Your task to perform on an android device: toggle data saver in the chrome app Image 0: 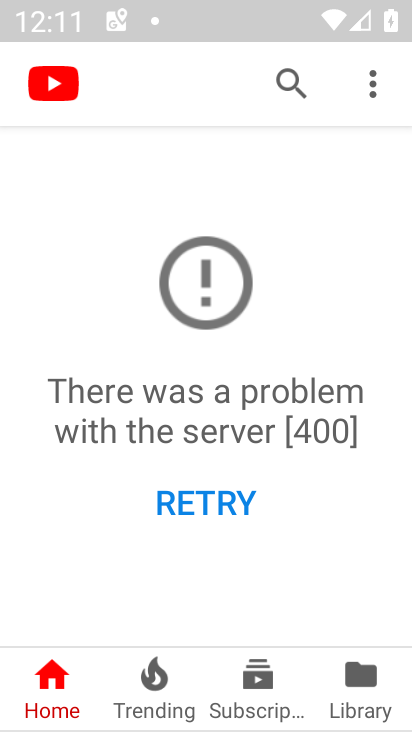
Step 0: press home button
Your task to perform on an android device: toggle data saver in the chrome app Image 1: 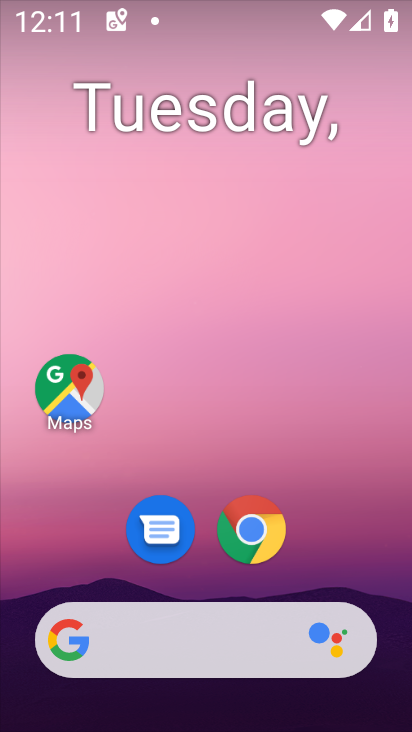
Step 1: click (259, 535)
Your task to perform on an android device: toggle data saver in the chrome app Image 2: 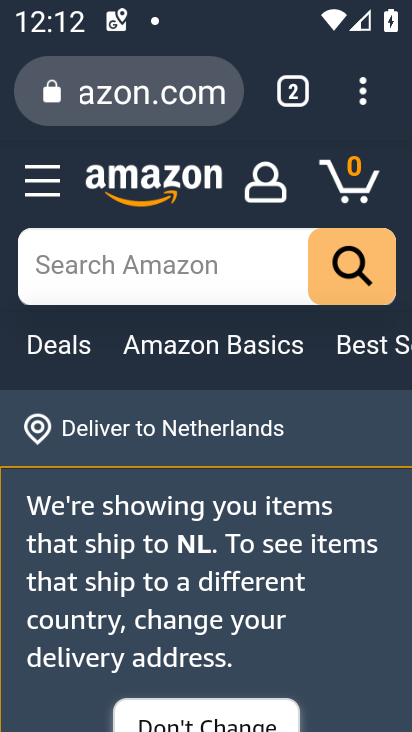
Step 2: drag from (359, 84) to (124, 557)
Your task to perform on an android device: toggle data saver in the chrome app Image 3: 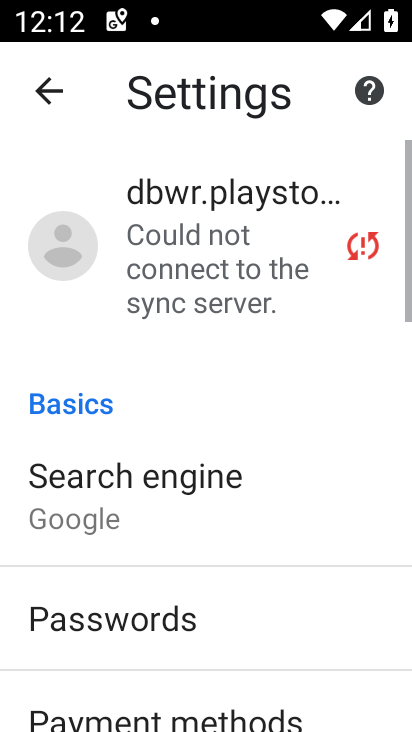
Step 3: drag from (185, 638) to (296, 47)
Your task to perform on an android device: toggle data saver in the chrome app Image 4: 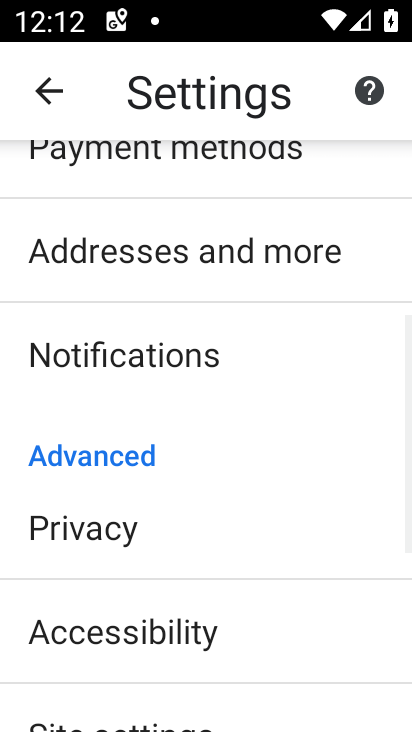
Step 4: drag from (175, 633) to (239, 108)
Your task to perform on an android device: toggle data saver in the chrome app Image 5: 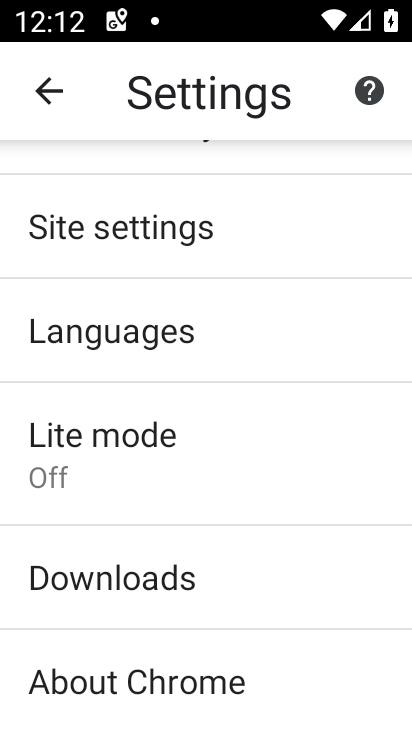
Step 5: click (150, 458)
Your task to perform on an android device: toggle data saver in the chrome app Image 6: 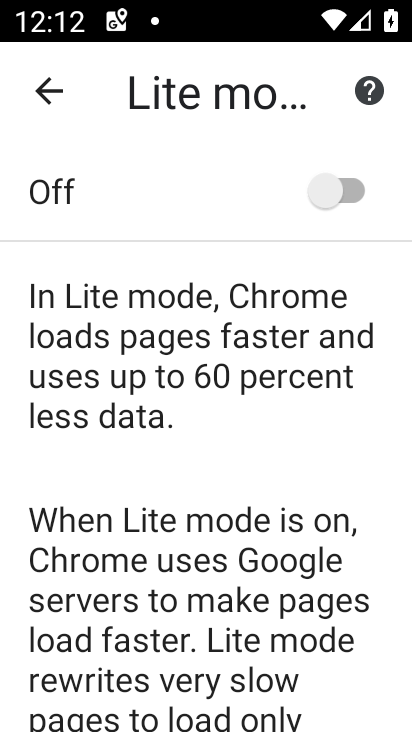
Step 6: click (337, 191)
Your task to perform on an android device: toggle data saver in the chrome app Image 7: 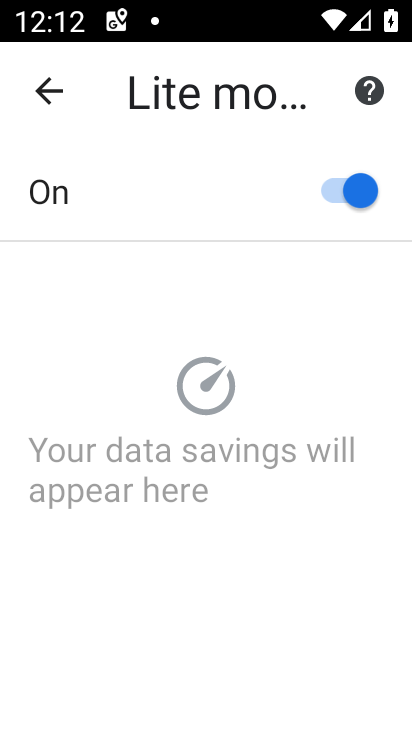
Step 7: task complete